Your task to perform on an android device: toggle translation in the chrome app Image 0: 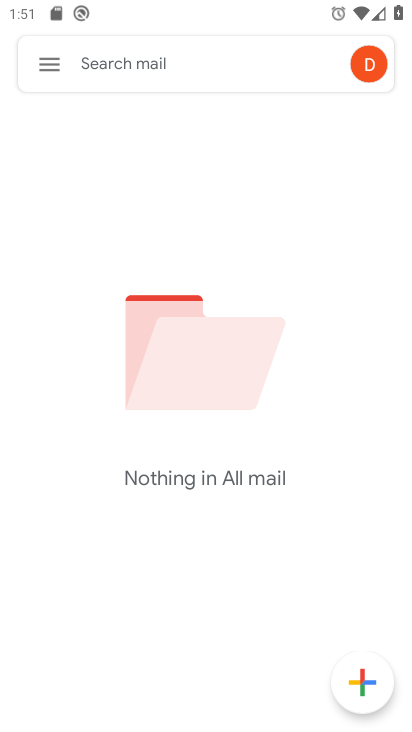
Step 0: press home button
Your task to perform on an android device: toggle translation in the chrome app Image 1: 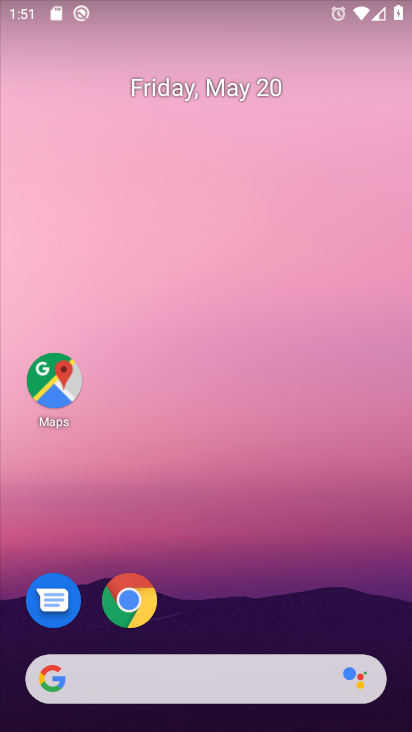
Step 1: click (138, 598)
Your task to perform on an android device: toggle translation in the chrome app Image 2: 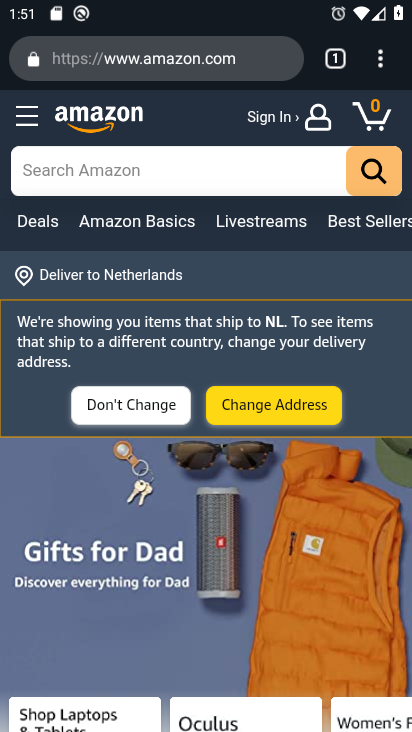
Step 2: click (391, 64)
Your task to perform on an android device: toggle translation in the chrome app Image 3: 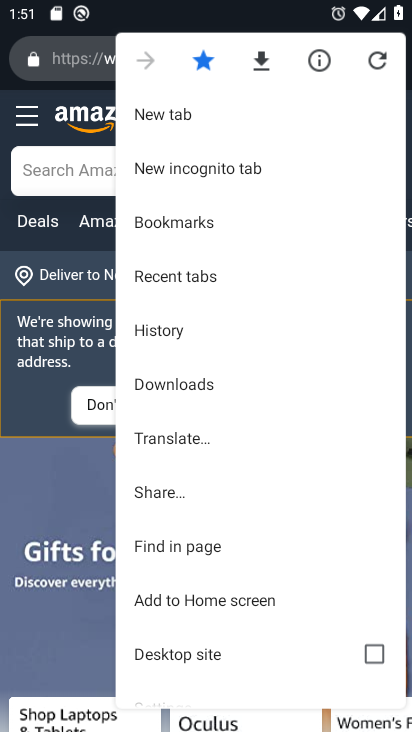
Step 3: drag from (192, 583) to (226, 331)
Your task to perform on an android device: toggle translation in the chrome app Image 4: 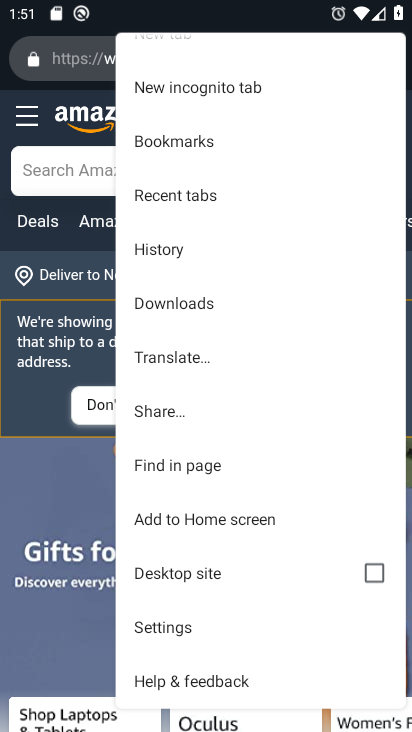
Step 4: click (175, 633)
Your task to perform on an android device: toggle translation in the chrome app Image 5: 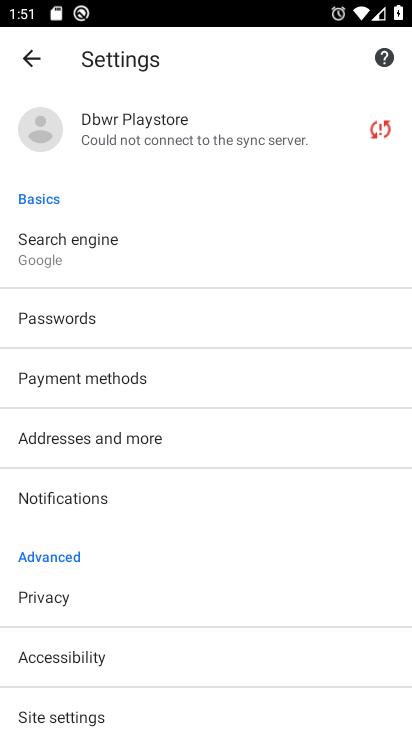
Step 5: drag from (120, 618) to (163, 414)
Your task to perform on an android device: toggle translation in the chrome app Image 6: 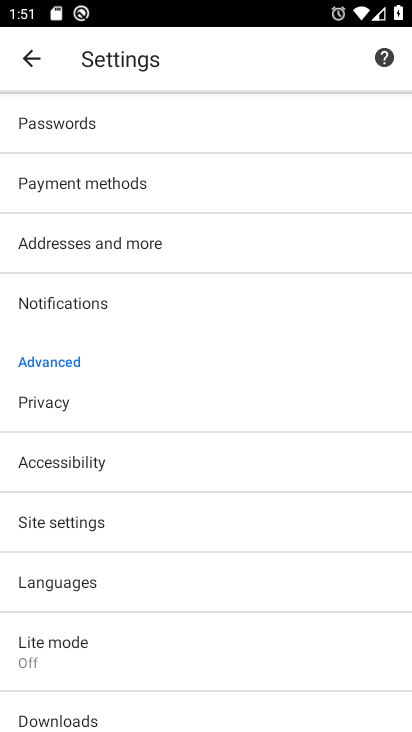
Step 6: click (81, 579)
Your task to perform on an android device: toggle translation in the chrome app Image 7: 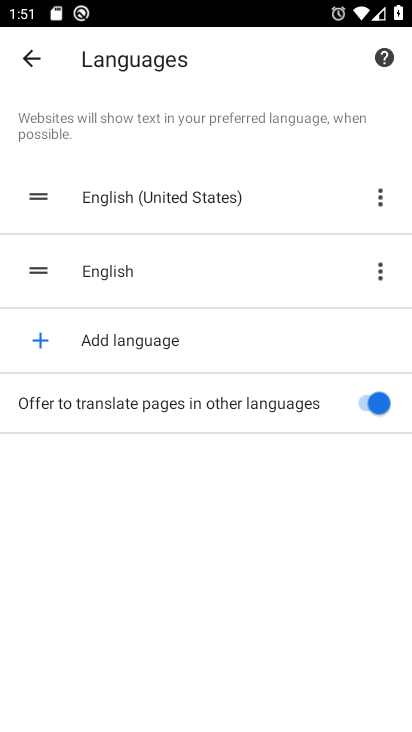
Step 7: click (346, 406)
Your task to perform on an android device: toggle translation in the chrome app Image 8: 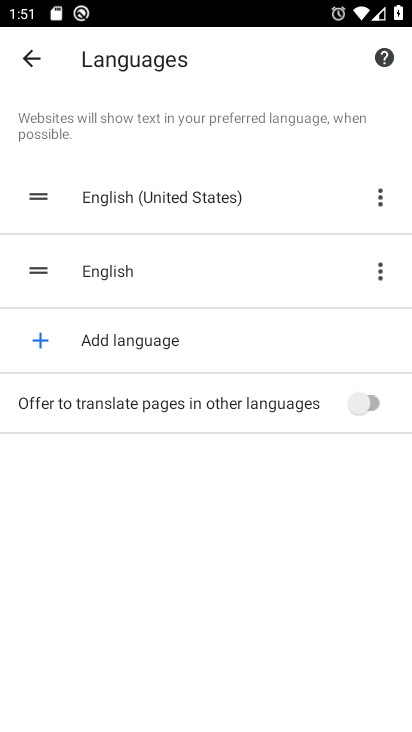
Step 8: task complete